Your task to perform on an android device: change the clock display to analog Image 0: 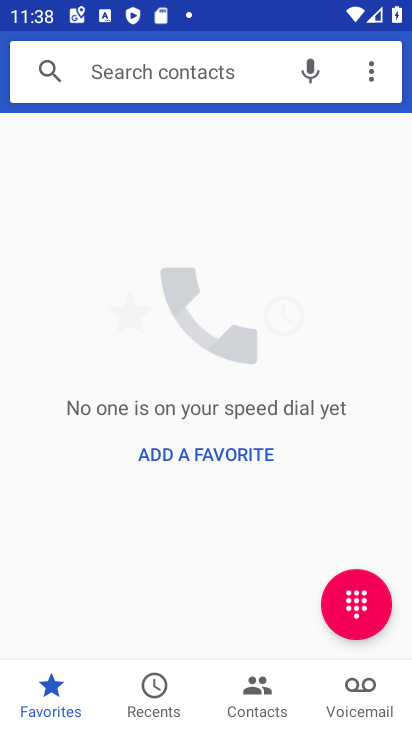
Step 0: press home button
Your task to perform on an android device: change the clock display to analog Image 1: 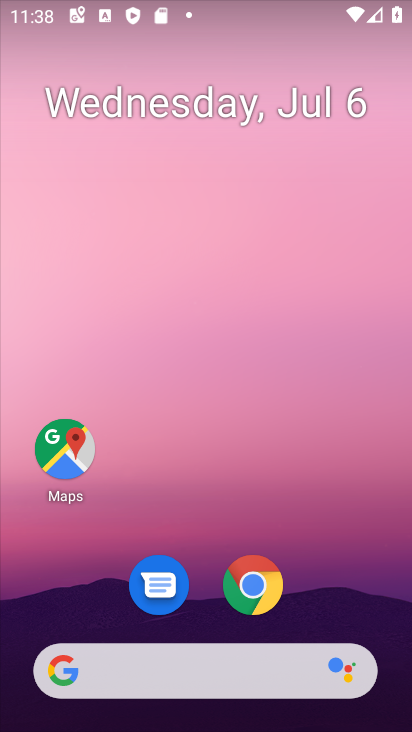
Step 1: drag from (222, 499) to (208, 17)
Your task to perform on an android device: change the clock display to analog Image 2: 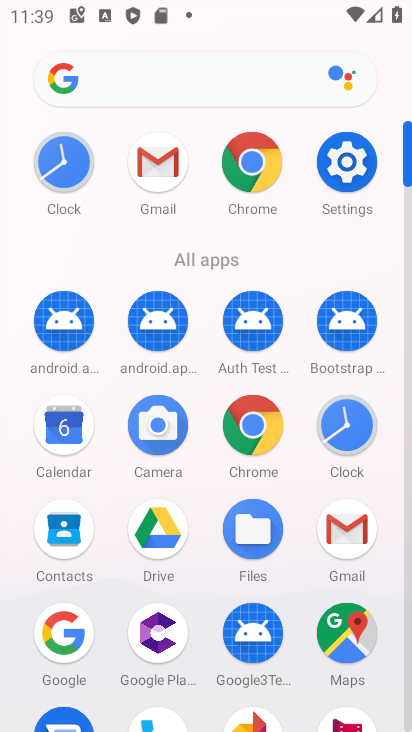
Step 2: click (346, 411)
Your task to perform on an android device: change the clock display to analog Image 3: 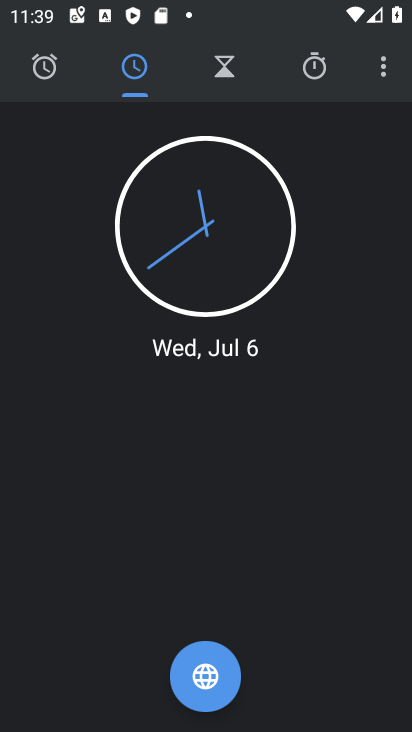
Step 3: click (137, 59)
Your task to perform on an android device: change the clock display to analog Image 4: 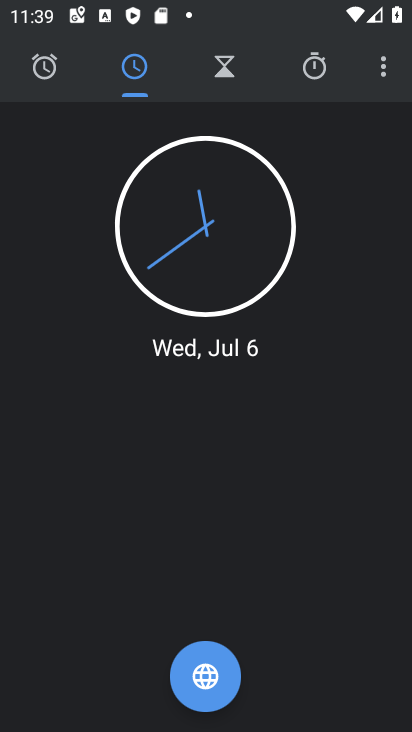
Step 4: task complete